Your task to perform on an android device: Open Android settings Image 0: 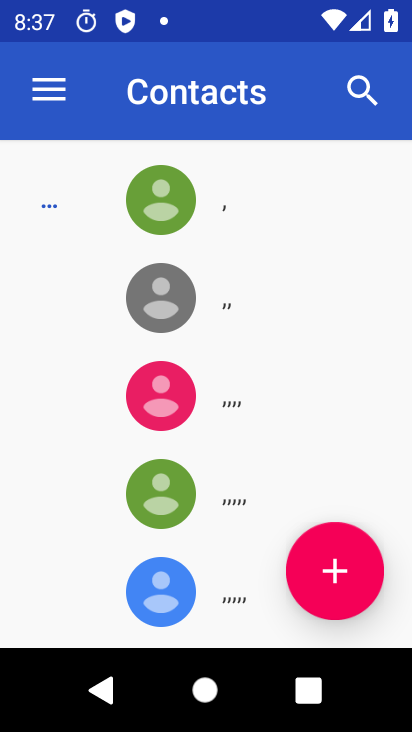
Step 0: press home button
Your task to perform on an android device: Open Android settings Image 1: 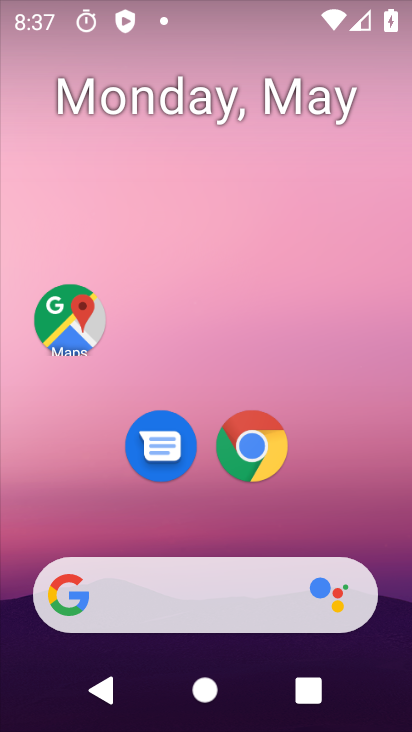
Step 1: drag from (348, 528) to (352, 15)
Your task to perform on an android device: Open Android settings Image 2: 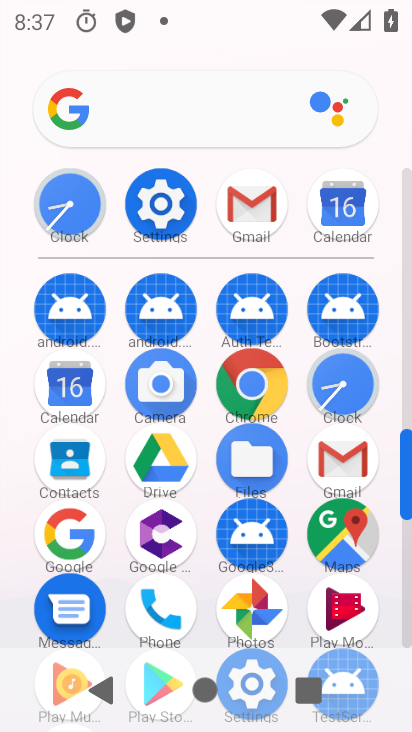
Step 2: click (158, 207)
Your task to perform on an android device: Open Android settings Image 3: 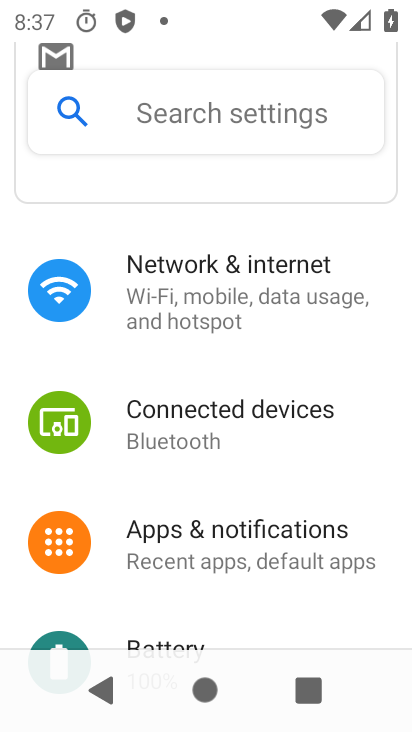
Step 3: task complete